Your task to perform on an android device: all mails in gmail Image 0: 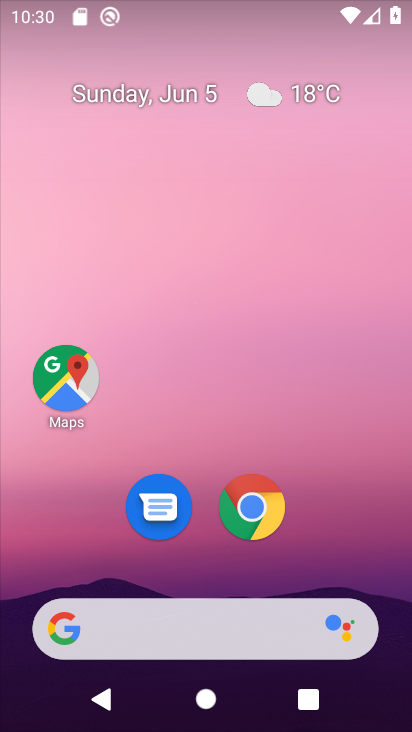
Step 0: drag from (205, 591) to (267, 0)
Your task to perform on an android device: all mails in gmail Image 1: 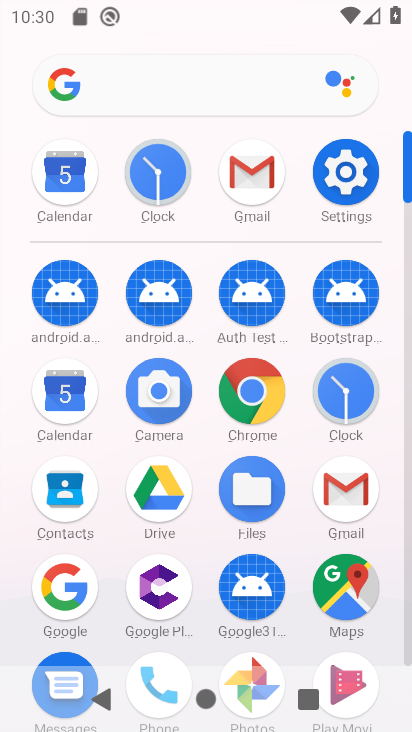
Step 1: click (338, 493)
Your task to perform on an android device: all mails in gmail Image 2: 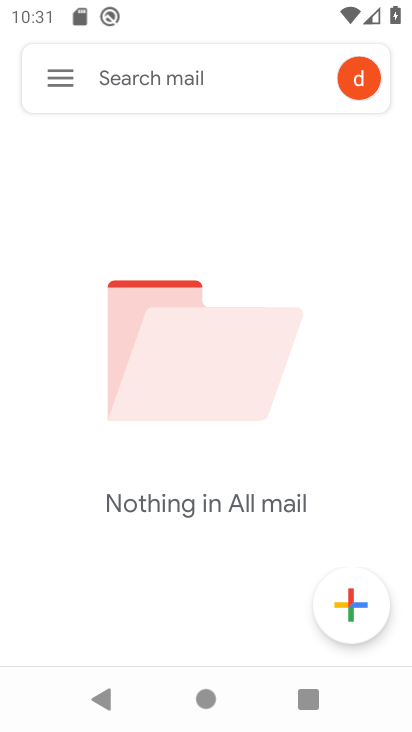
Step 2: task complete